Your task to perform on an android device: open sync settings in chrome Image 0: 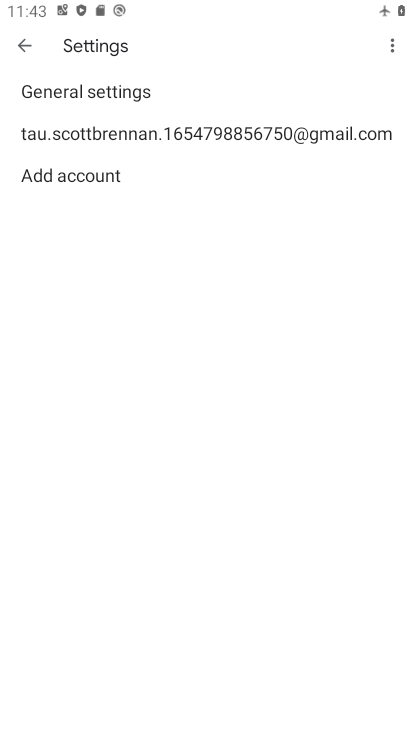
Step 0: press home button
Your task to perform on an android device: open sync settings in chrome Image 1: 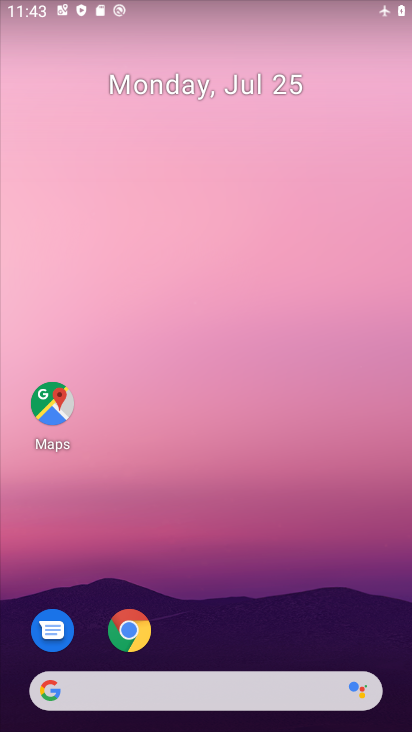
Step 1: drag from (350, 622) to (357, 173)
Your task to perform on an android device: open sync settings in chrome Image 2: 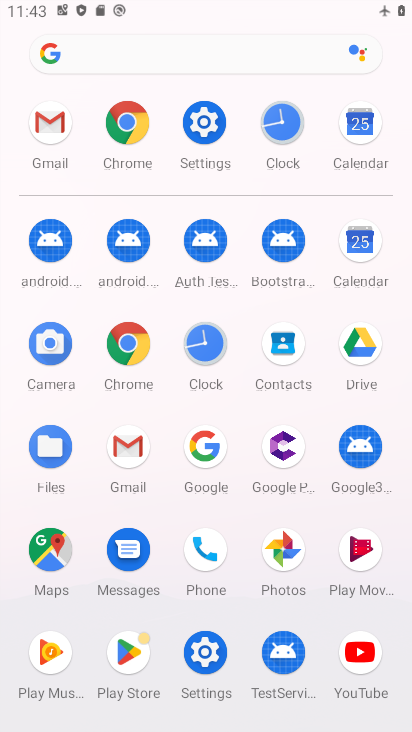
Step 2: click (133, 345)
Your task to perform on an android device: open sync settings in chrome Image 3: 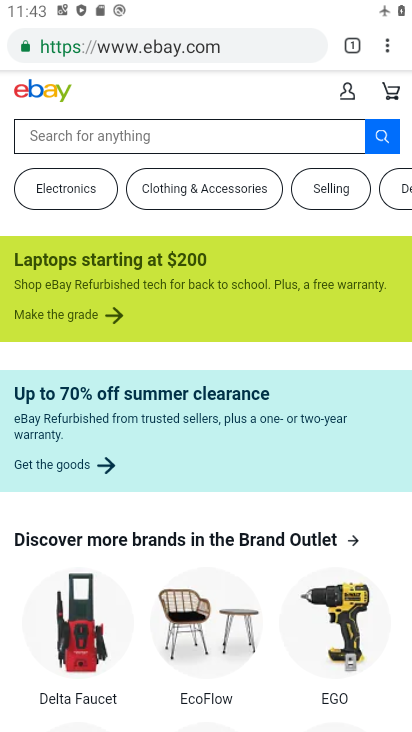
Step 3: click (387, 49)
Your task to perform on an android device: open sync settings in chrome Image 4: 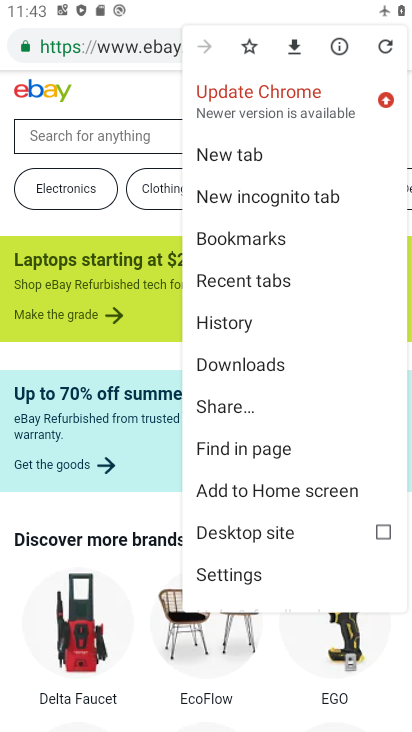
Step 4: click (314, 577)
Your task to perform on an android device: open sync settings in chrome Image 5: 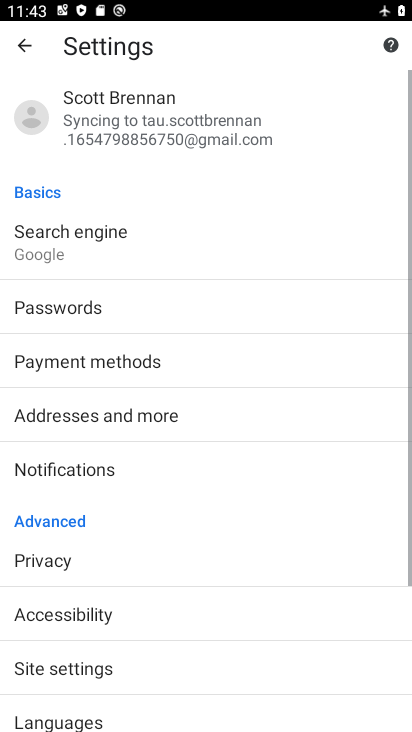
Step 5: drag from (314, 577) to (315, 485)
Your task to perform on an android device: open sync settings in chrome Image 6: 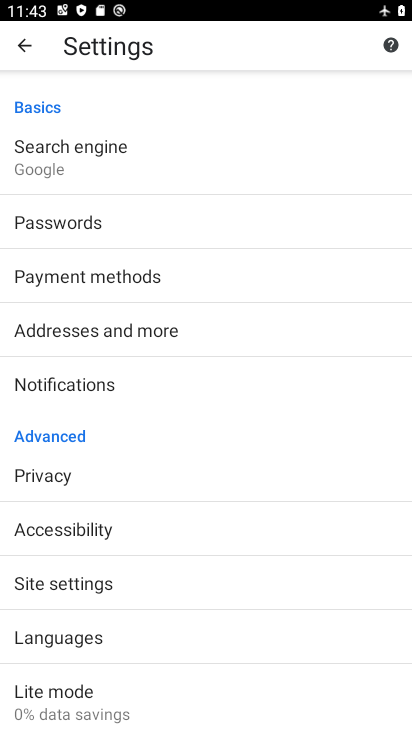
Step 6: drag from (315, 573) to (312, 500)
Your task to perform on an android device: open sync settings in chrome Image 7: 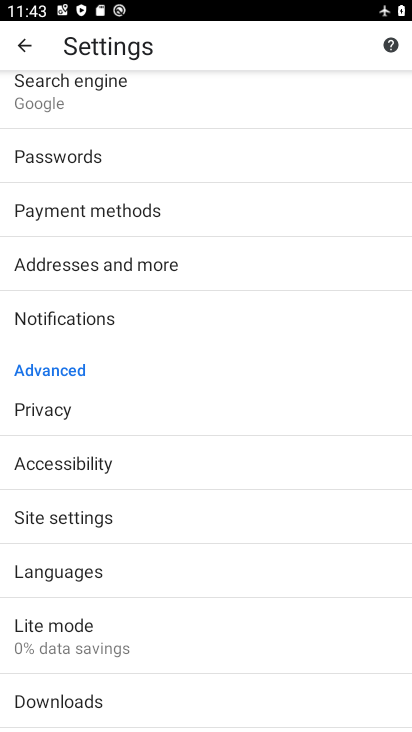
Step 7: drag from (314, 603) to (318, 492)
Your task to perform on an android device: open sync settings in chrome Image 8: 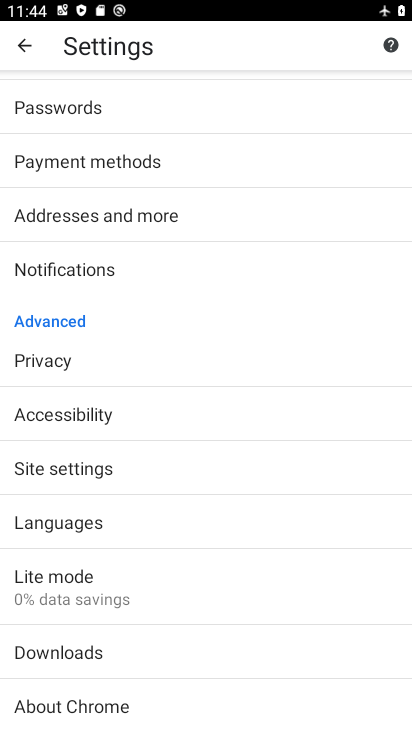
Step 8: click (304, 469)
Your task to perform on an android device: open sync settings in chrome Image 9: 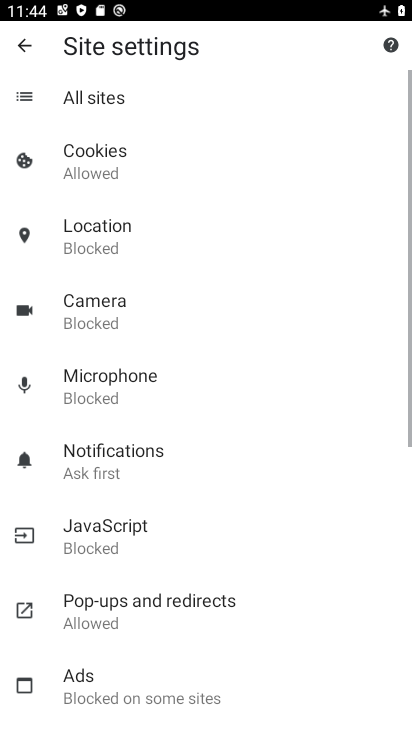
Step 9: drag from (305, 534) to (307, 464)
Your task to perform on an android device: open sync settings in chrome Image 10: 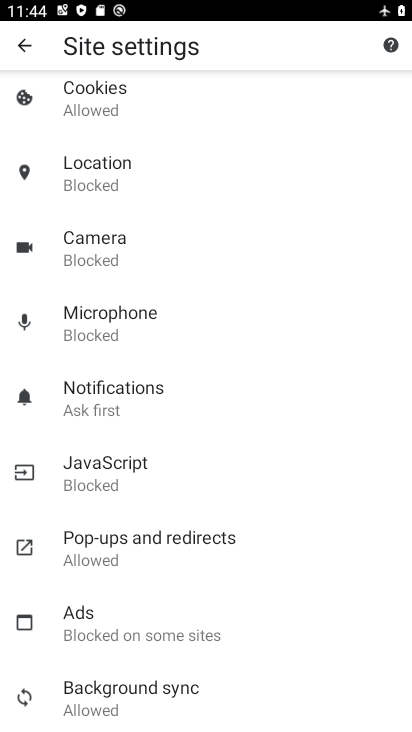
Step 10: drag from (313, 566) to (313, 490)
Your task to perform on an android device: open sync settings in chrome Image 11: 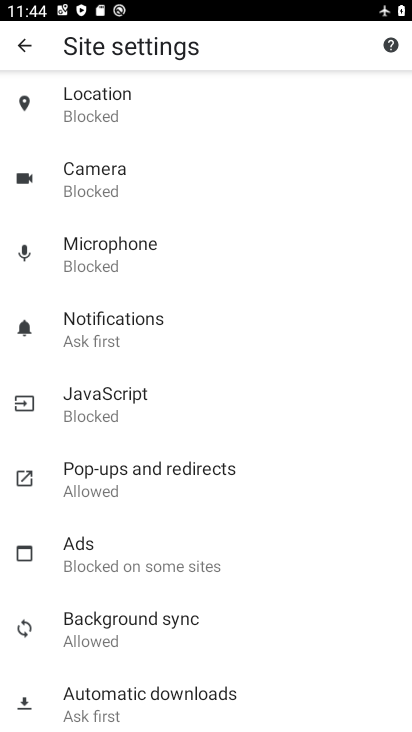
Step 11: drag from (311, 587) to (310, 509)
Your task to perform on an android device: open sync settings in chrome Image 12: 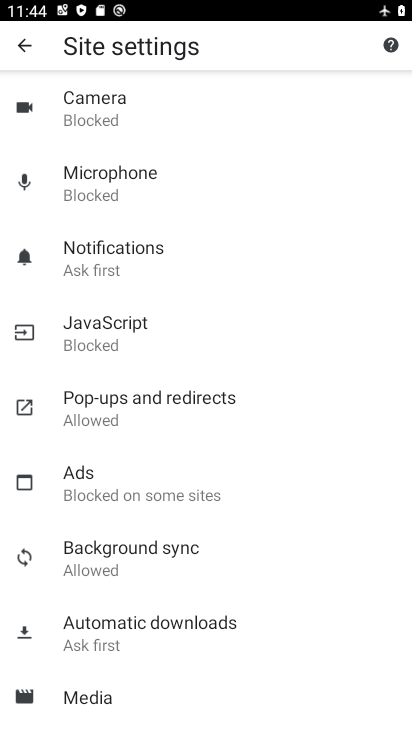
Step 12: drag from (321, 603) to (325, 539)
Your task to perform on an android device: open sync settings in chrome Image 13: 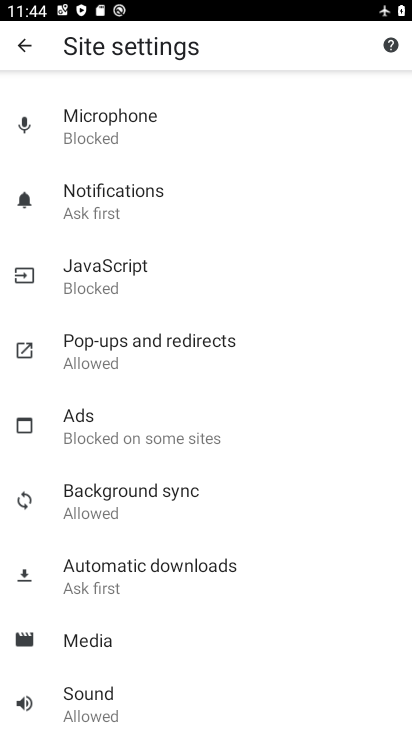
Step 13: drag from (329, 622) to (327, 524)
Your task to perform on an android device: open sync settings in chrome Image 14: 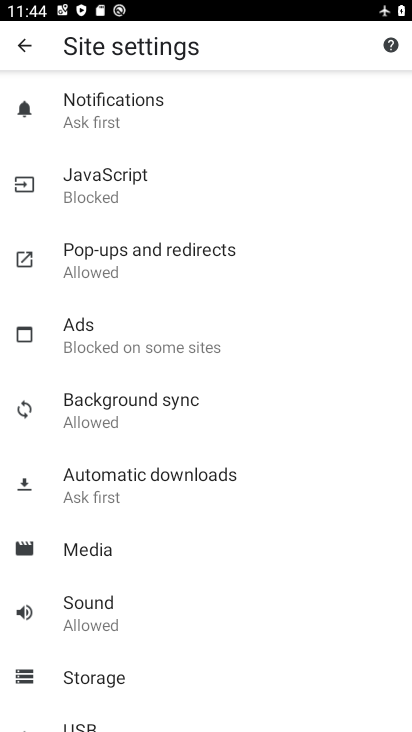
Step 14: click (241, 397)
Your task to perform on an android device: open sync settings in chrome Image 15: 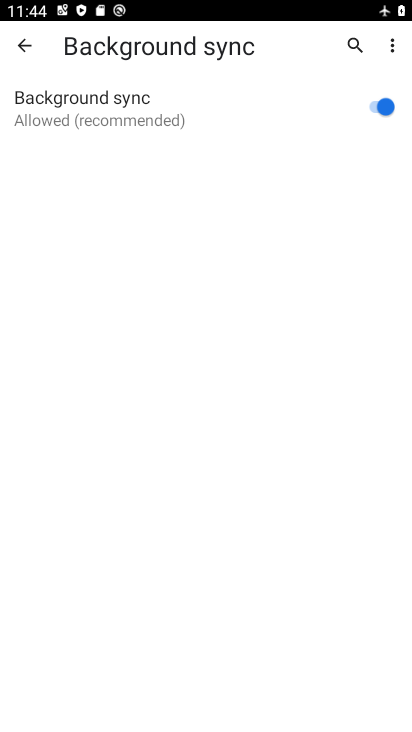
Step 15: task complete